Your task to perform on an android device: Open Google Chrome and open the bookmarks view Image 0: 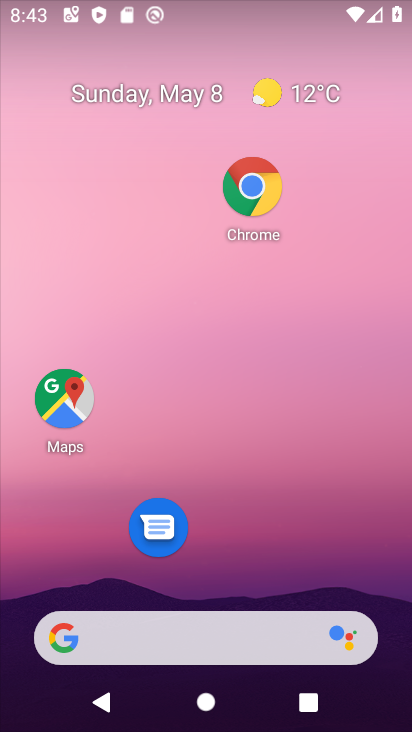
Step 0: drag from (305, 377) to (316, 223)
Your task to perform on an android device: Open Google Chrome and open the bookmarks view Image 1: 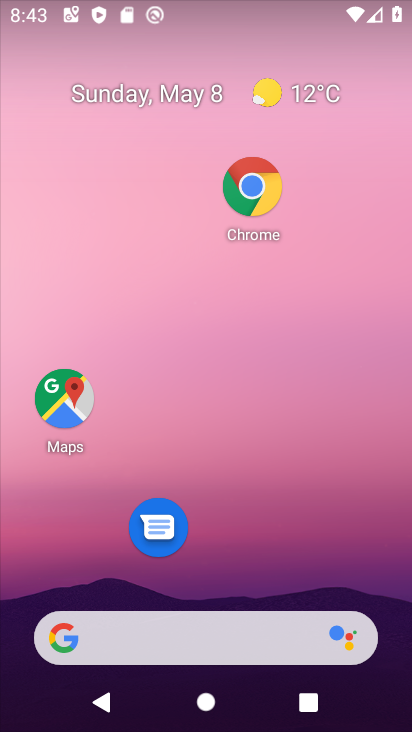
Step 1: drag from (267, 557) to (302, 292)
Your task to perform on an android device: Open Google Chrome and open the bookmarks view Image 2: 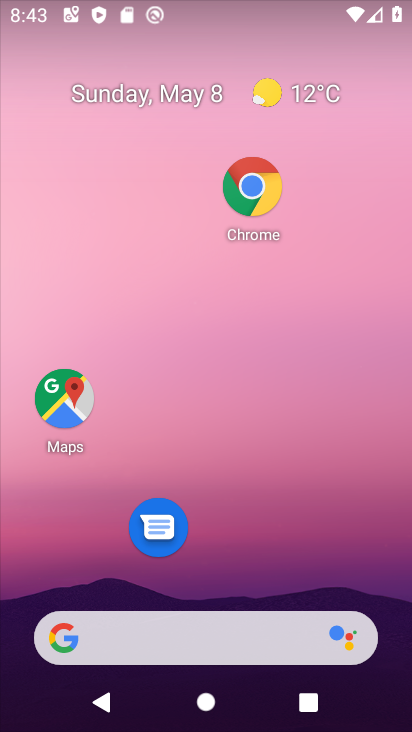
Step 2: drag from (232, 571) to (290, 187)
Your task to perform on an android device: Open Google Chrome and open the bookmarks view Image 3: 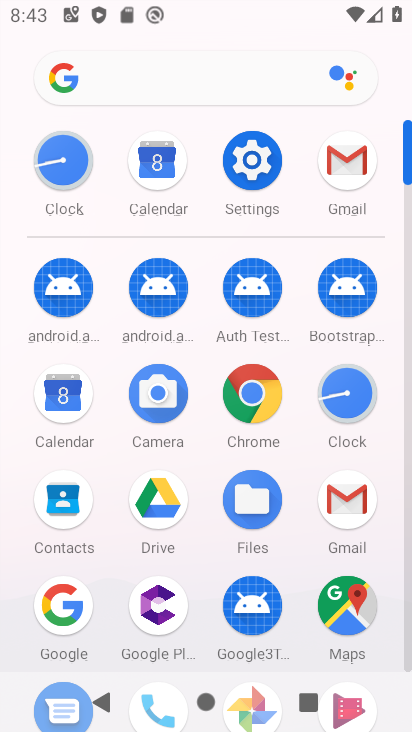
Step 3: click (241, 383)
Your task to perform on an android device: Open Google Chrome and open the bookmarks view Image 4: 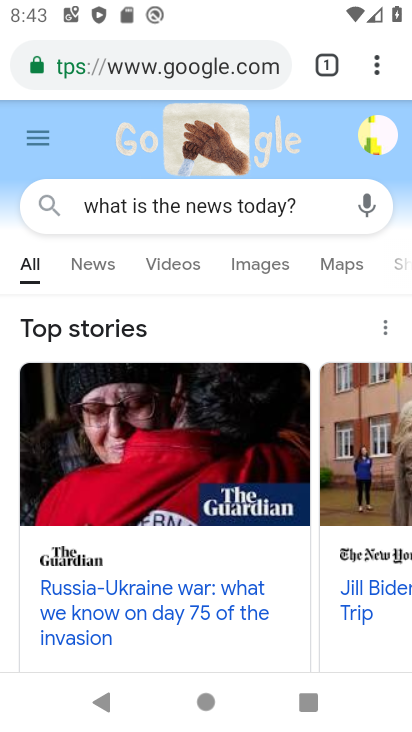
Step 4: click (367, 63)
Your task to perform on an android device: Open Google Chrome and open the bookmarks view Image 5: 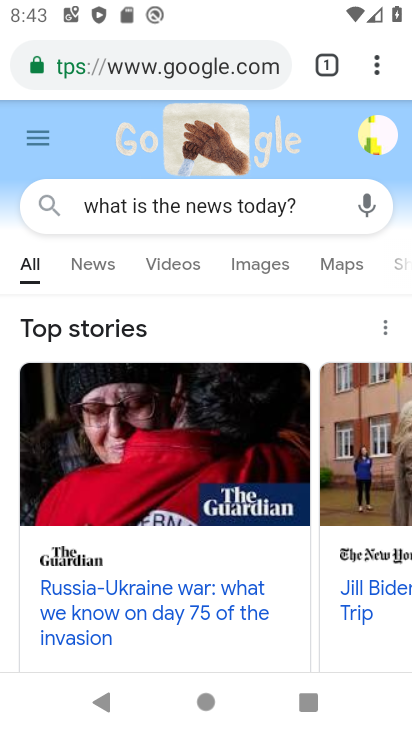
Step 5: click (370, 64)
Your task to perform on an android device: Open Google Chrome and open the bookmarks view Image 6: 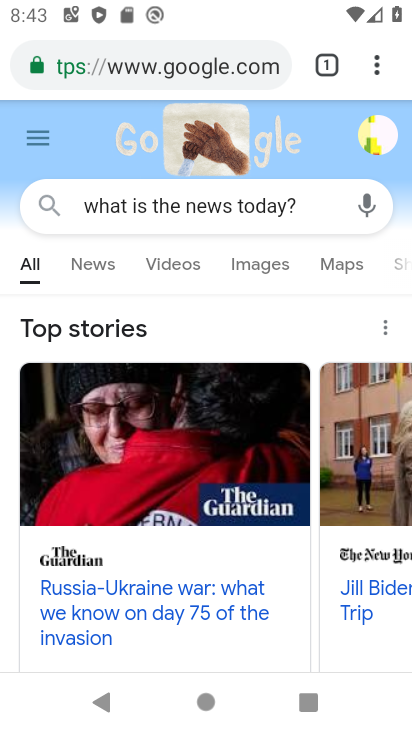
Step 6: click (369, 64)
Your task to perform on an android device: Open Google Chrome and open the bookmarks view Image 7: 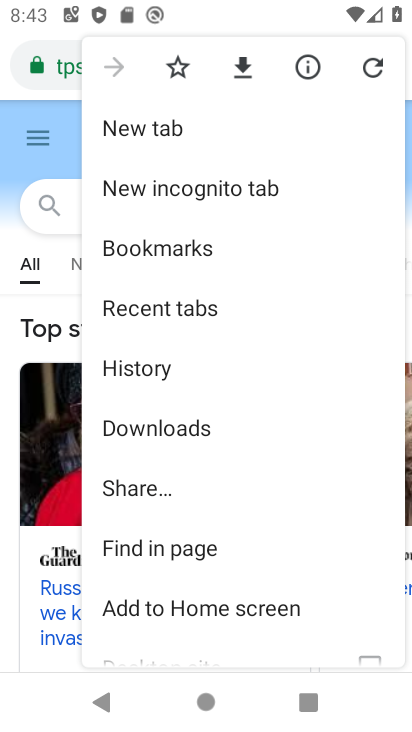
Step 7: click (203, 242)
Your task to perform on an android device: Open Google Chrome and open the bookmarks view Image 8: 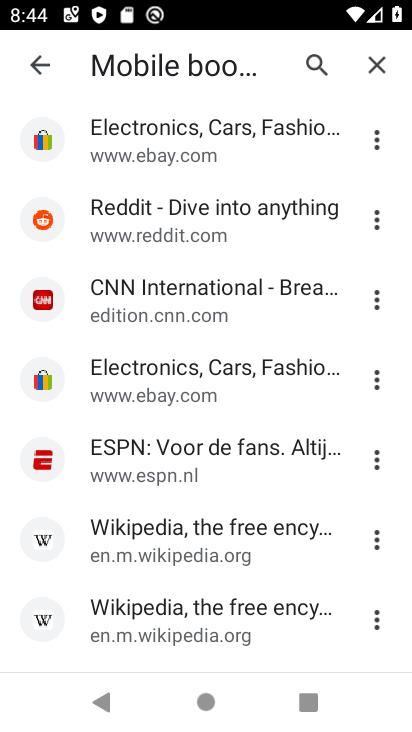
Step 8: task complete